Your task to perform on an android device: Open my contact list Image 0: 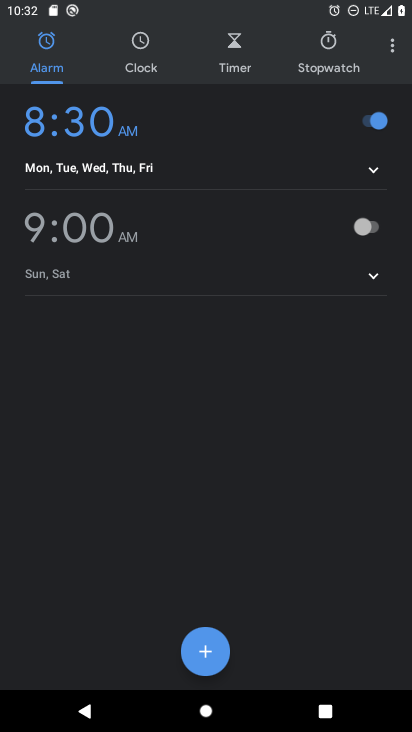
Step 0: press home button
Your task to perform on an android device: Open my contact list Image 1: 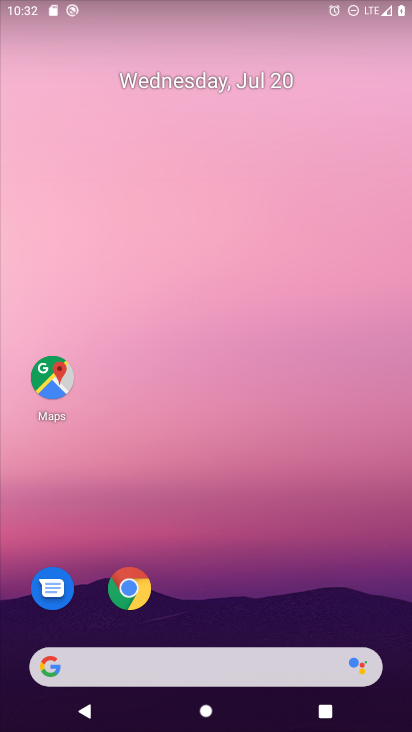
Step 1: drag from (252, 192) to (260, 61)
Your task to perform on an android device: Open my contact list Image 2: 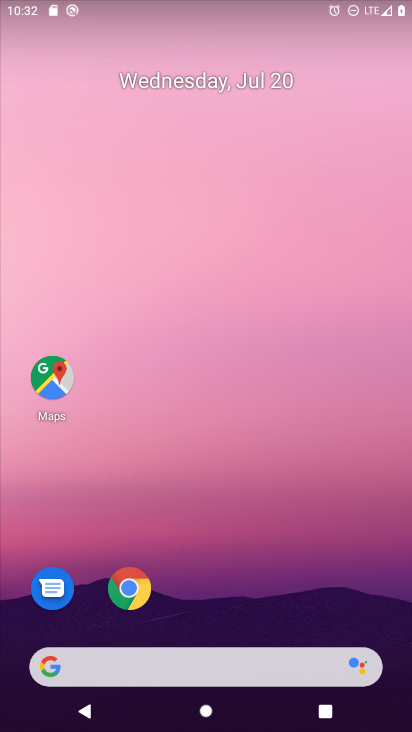
Step 2: drag from (193, 616) to (240, 68)
Your task to perform on an android device: Open my contact list Image 3: 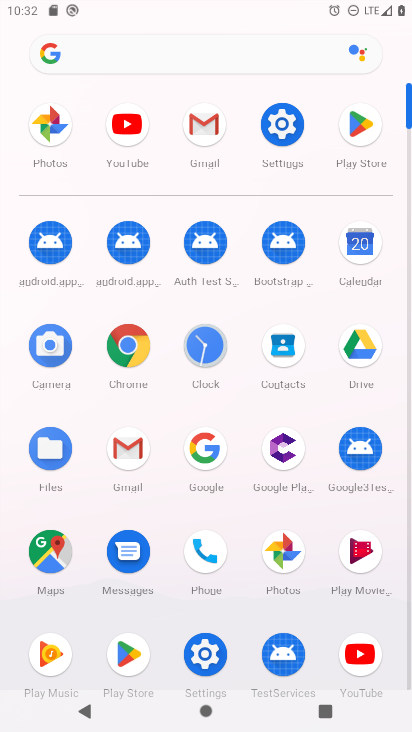
Step 3: click (275, 333)
Your task to perform on an android device: Open my contact list Image 4: 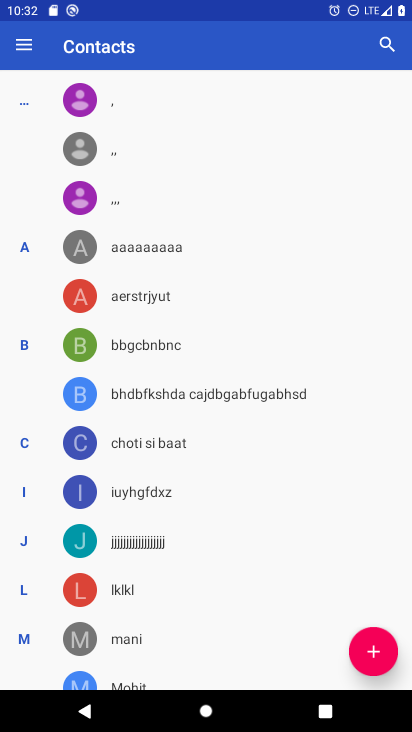
Step 4: task complete